Your task to perform on an android device: delete a single message in the gmail app Image 0: 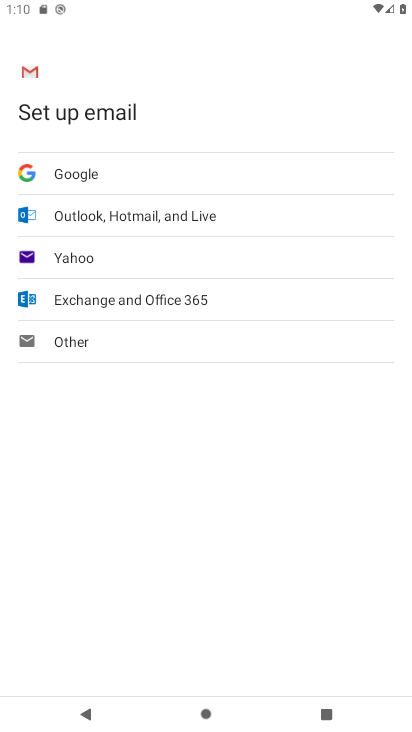
Step 0: press home button
Your task to perform on an android device: delete a single message in the gmail app Image 1: 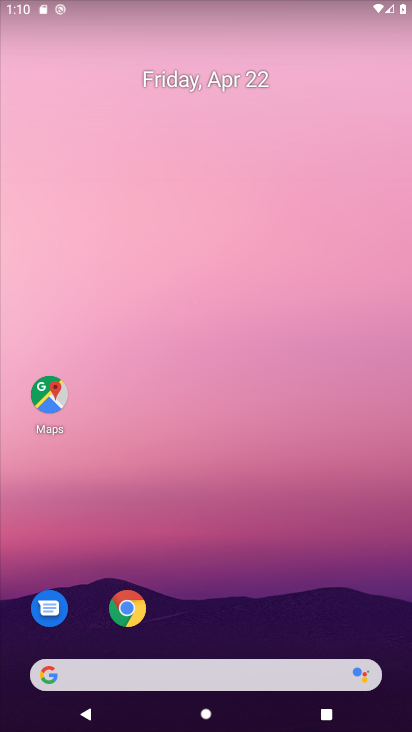
Step 1: drag from (265, 569) to (287, 173)
Your task to perform on an android device: delete a single message in the gmail app Image 2: 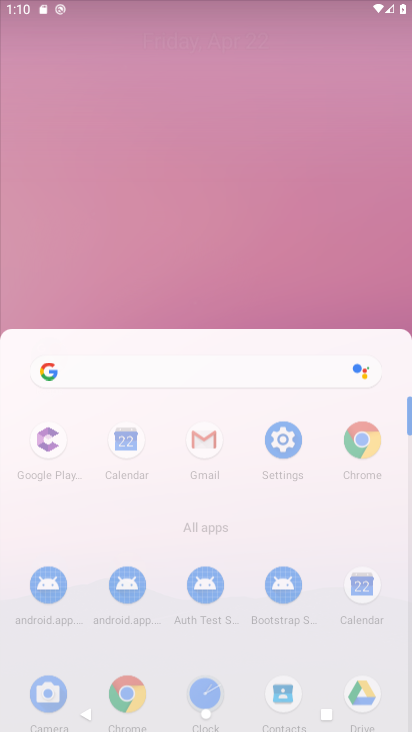
Step 2: click (291, 125)
Your task to perform on an android device: delete a single message in the gmail app Image 3: 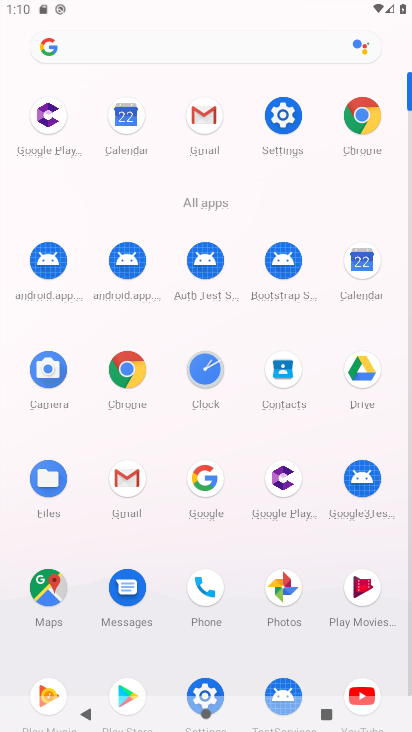
Step 3: click (204, 110)
Your task to perform on an android device: delete a single message in the gmail app Image 4: 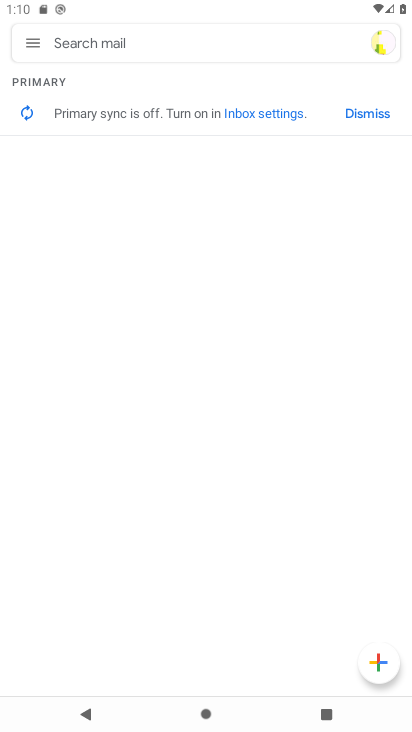
Step 4: task complete